Your task to perform on an android device: Go to sound settings Image 0: 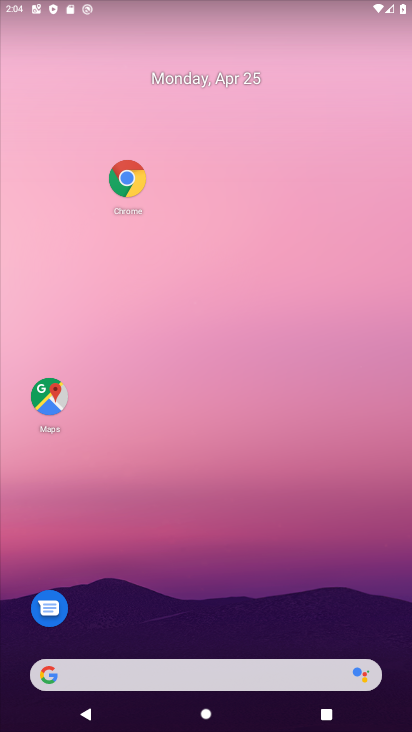
Step 0: drag from (154, 528) to (166, 282)
Your task to perform on an android device: Go to sound settings Image 1: 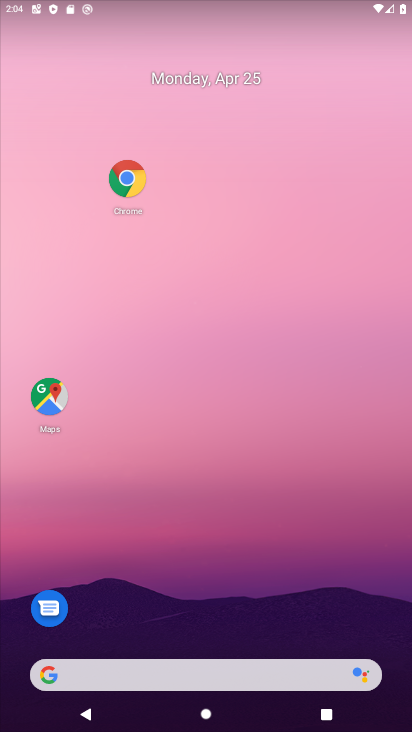
Step 1: drag from (236, 600) to (312, 0)
Your task to perform on an android device: Go to sound settings Image 2: 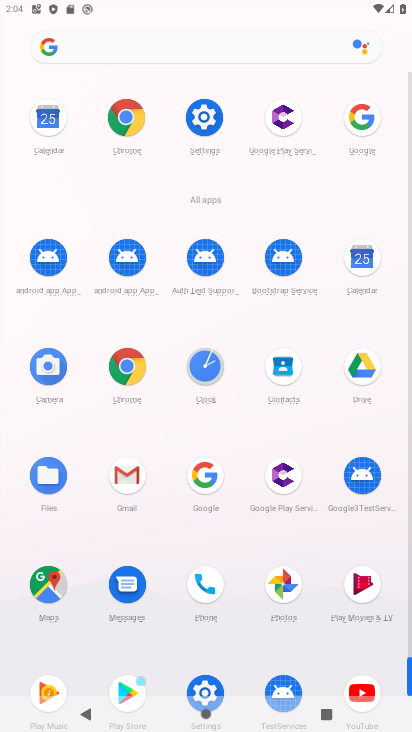
Step 2: click (199, 684)
Your task to perform on an android device: Go to sound settings Image 3: 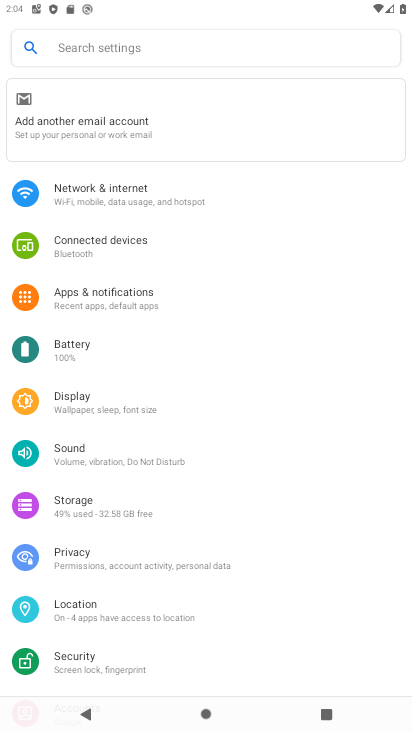
Step 3: click (90, 460)
Your task to perform on an android device: Go to sound settings Image 4: 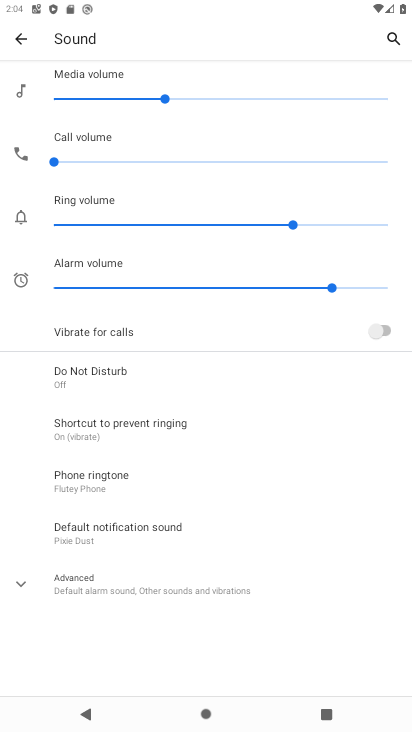
Step 4: task complete